Your task to perform on an android device: turn off airplane mode Image 0: 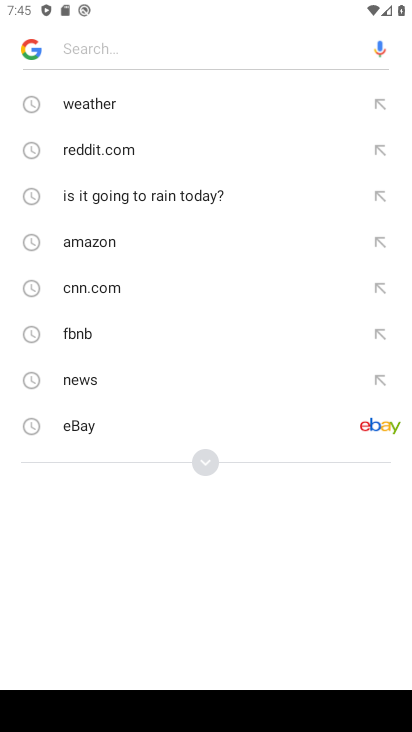
Step 0: press home button
Your task to perform on an android device: turn off airplane mode Image 1: 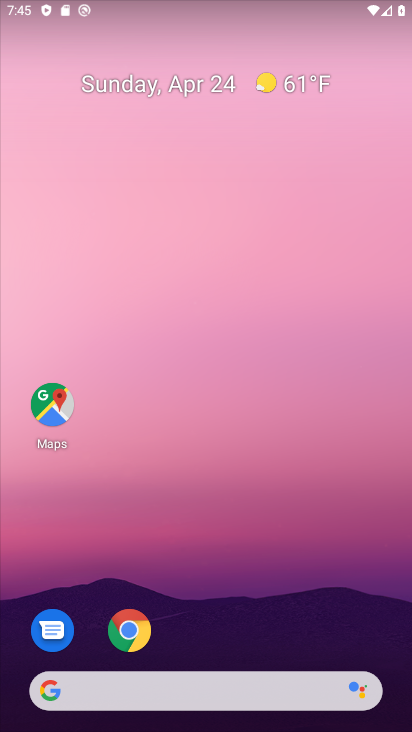
Step 1: drag from (363, 619) to (376, 115)
Your task to perform on an android device: turn off airplane mode Image 2: 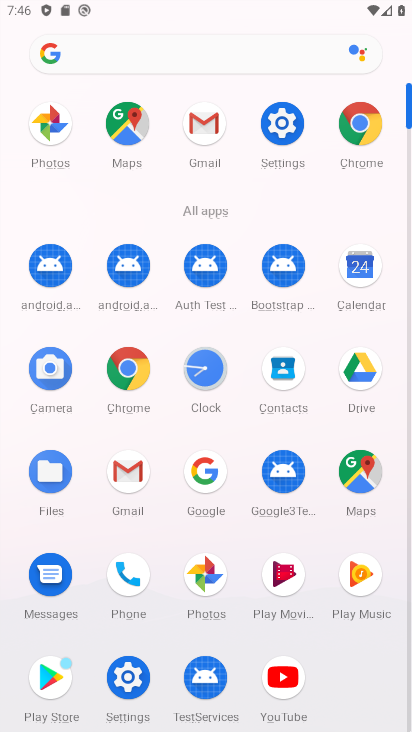
Step 2: click (280, 122)
Your task to perform on an android device: turn off airplane mode Image 3: 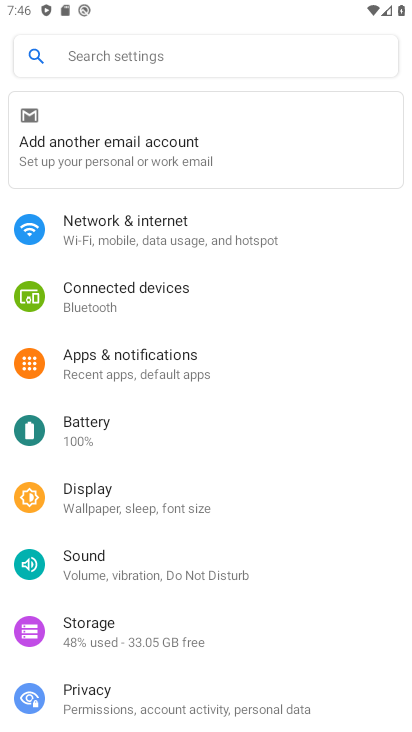
Step 3: click (242, 224)
Your task to perform on an android device: turn off airplane mode Image 4: 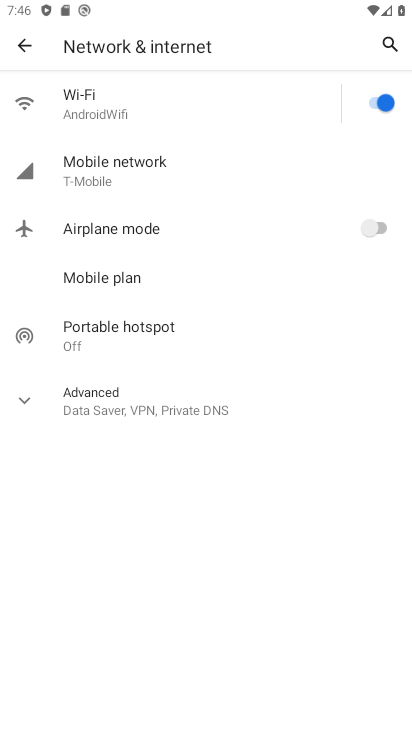
Step 4: task complete